Your task to perform on an android device: check the backup settings in the google photos Image 0: 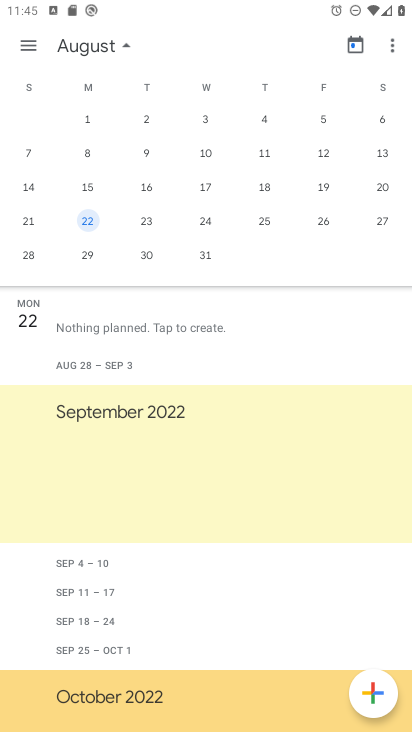
Step 0: press home button
Your task to perform on an android device: check the backup settings in the google photos Image 1: 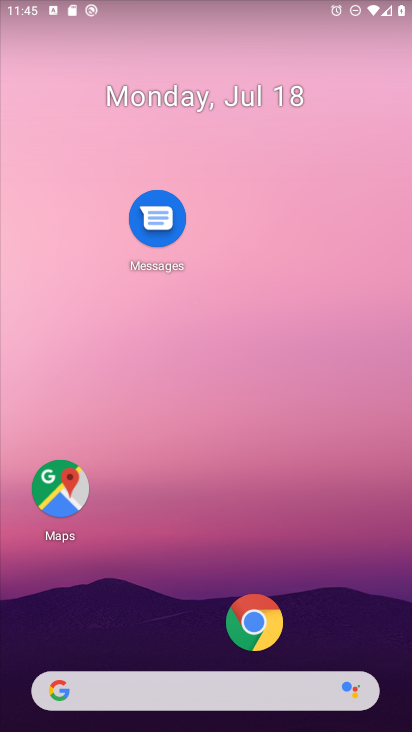
Step 1: drag from (244, 706) to (302, 139)
Your task to perform on an android device: check the backup settings in the google photos Image 2: 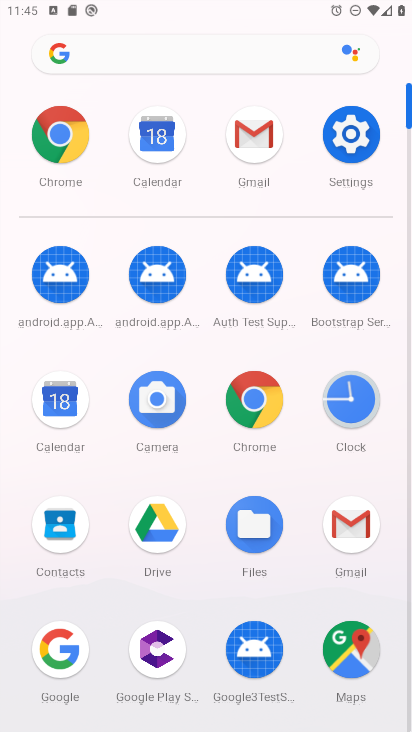
Step 2: drag from (174, 574) to (246, 245)
Your task to perform on an android device: check the backup settings in the google photos Image 3: 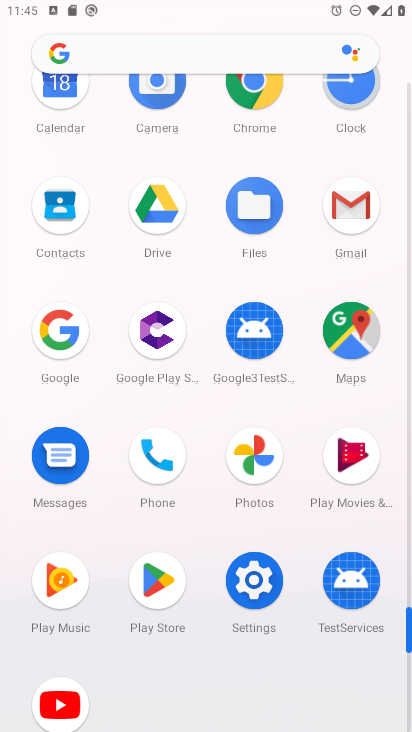
Step 3: click (60, 356)
Your task to perform on an android device: check the backup settings in the google photos Image 4: 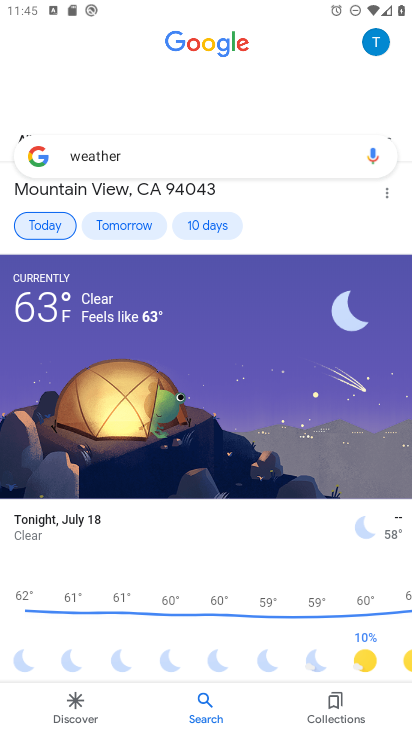
Step 4: press home button
Your task to perform on an android device: check the backup settings in the google photos Image 5: 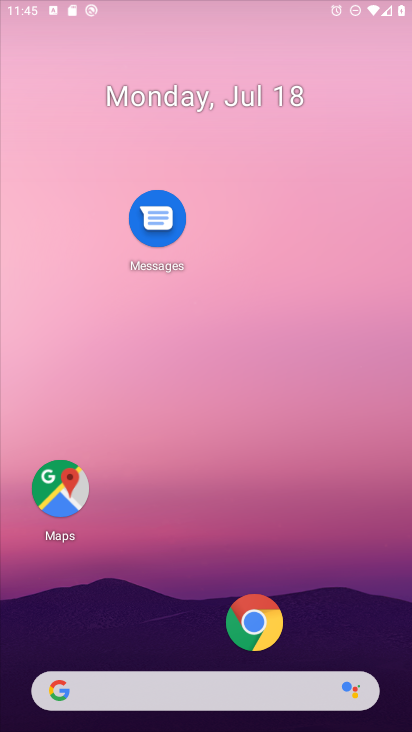
Step 5: drag from (233, 388) to (234, 66)
Your task to perform on an android device: check the backup settings in the google photos Image 6: 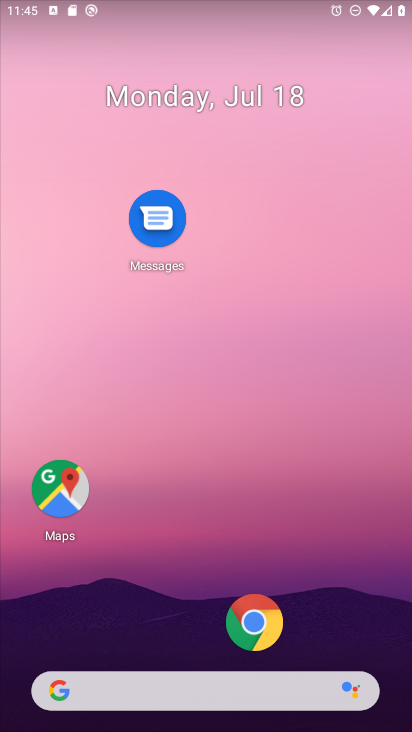
Step 6: drag from (188, 649) to (226, 156)
Your task to perform on an android device: check the backup settings in the google photos Image 7: 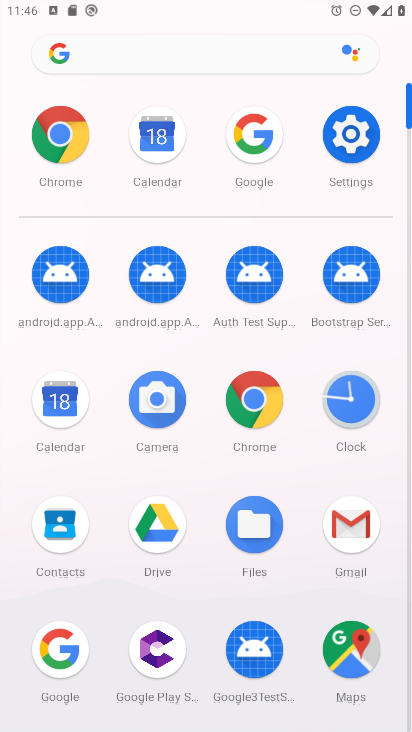
Step 7: drag from (201, 514) to (211, 116)
Your task to perform on an android device: check the backup settings in the google photos Image 8: 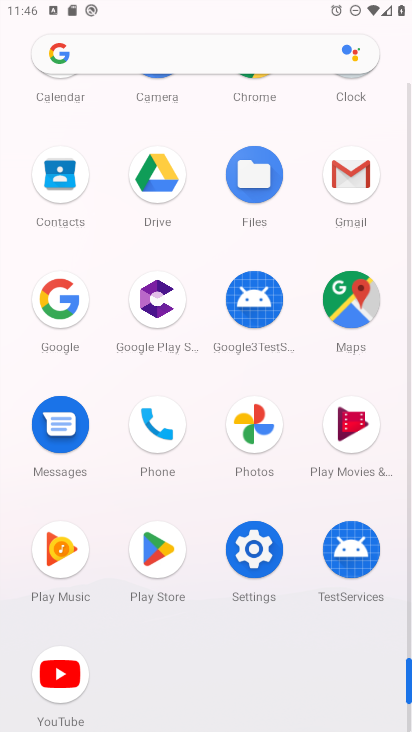
Step 8: click (261, 451)
Your task to perform on an android device: check the backup settings in the google photos Image 9: 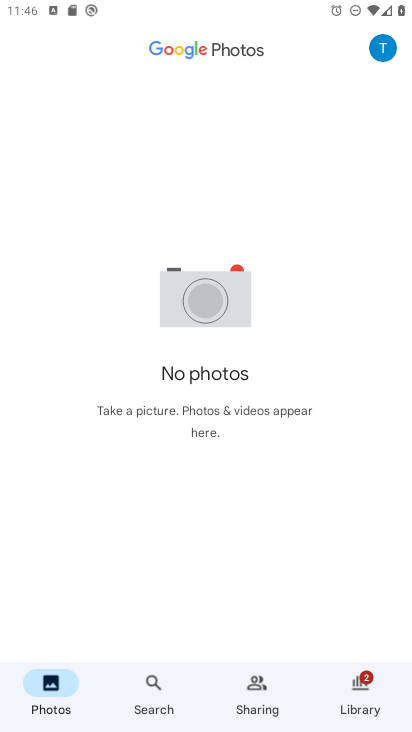
Step 9: click (387, 50)
Your task to perform on an android device: check the backup settings in the google photos Image 10: 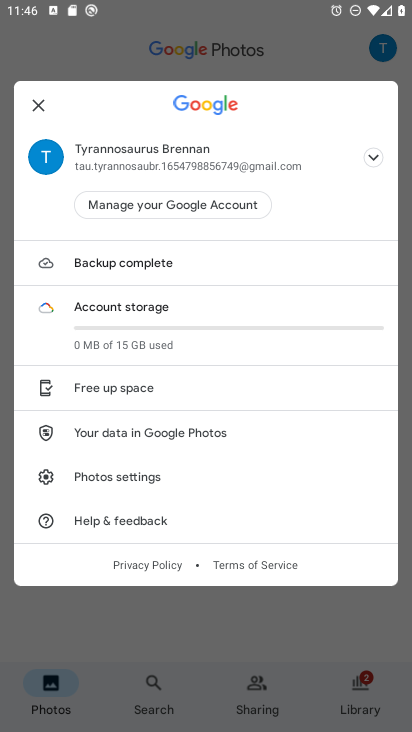
Step 10: click (124, 478)
Your task to perform on an android device: check the backup settings in the google photos Image 11: 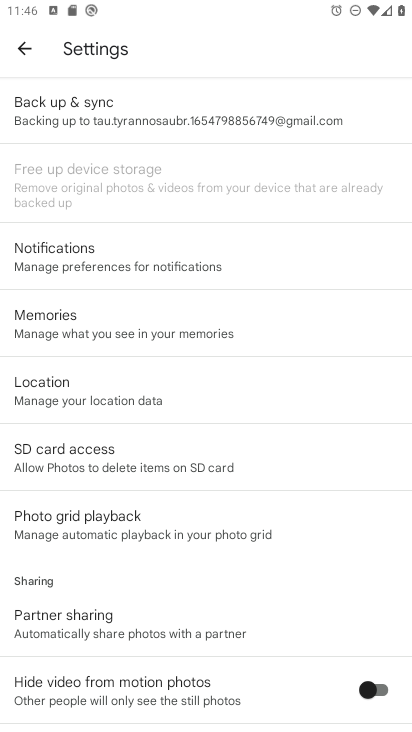
Step 11: click (138, 114)
Your task to perform on an android device: check the backup settings in the google photos Image 12: 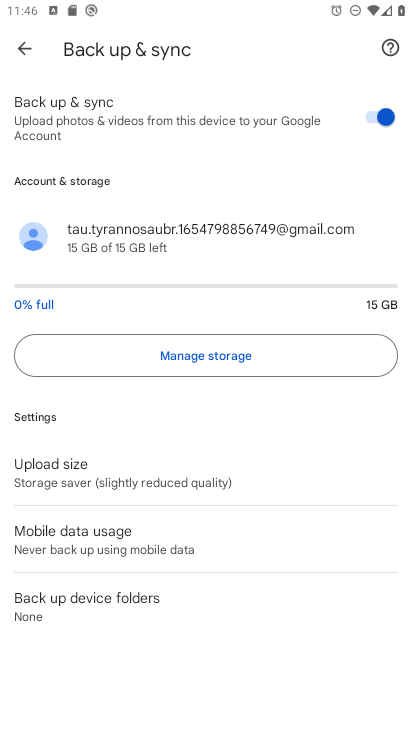
Step 12: task complete